Your task to perform on an android device: delete the emails in spam in the gmail app Image 0: 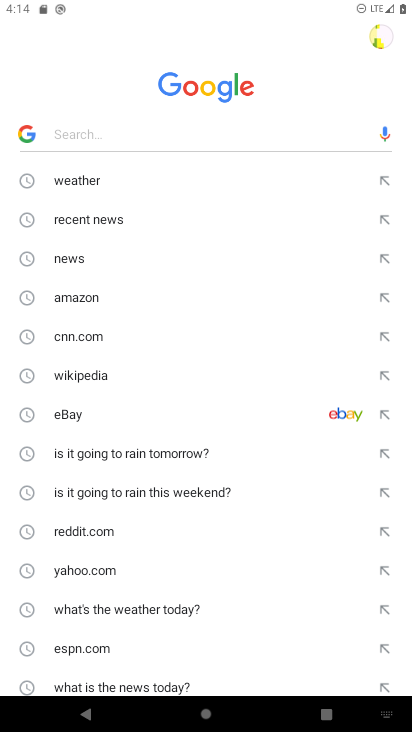
Step 0: press home button
Your task to perform on an android device: delete the emails in spam in the gmail app Image 1: 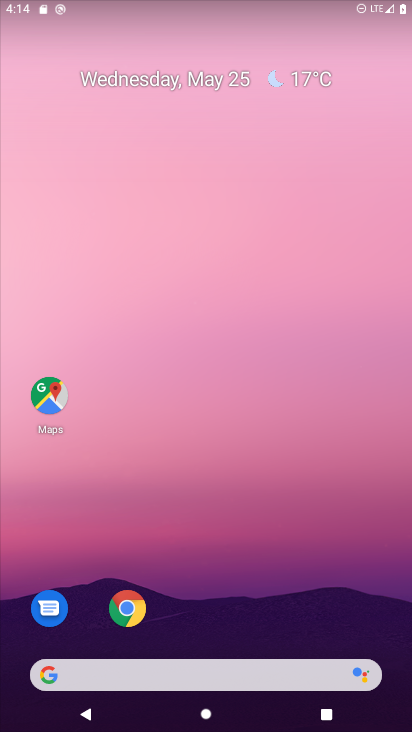
Step 1: drag from (375, 639) to (305, 104)
Your task to perform on an android device: delete the emails in spam in the gmail app Image 2: 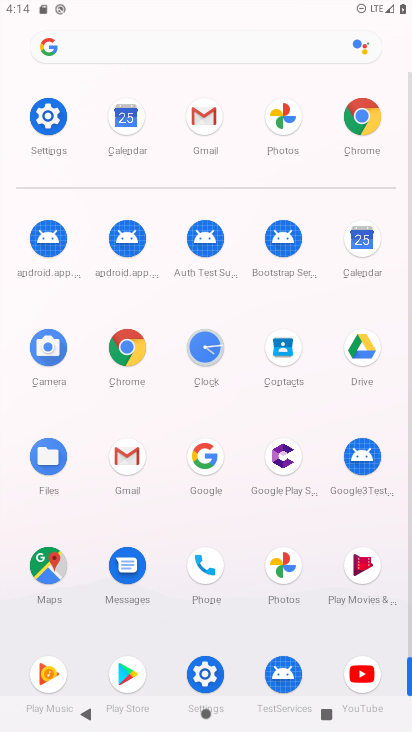
Step 2: click (410, 641)
Your task to perform on an android device: delete the emails in spam in the gmail app Image 3: 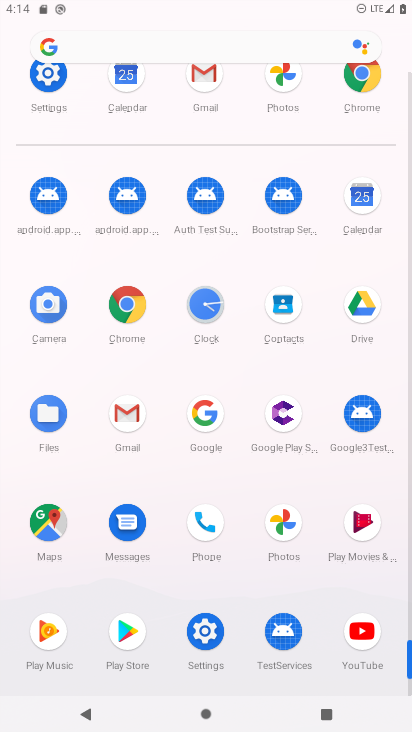
Step 3: click (126, 413)
Your task to perform on an android device: delete the emails in spam in the gmail app Image 4: 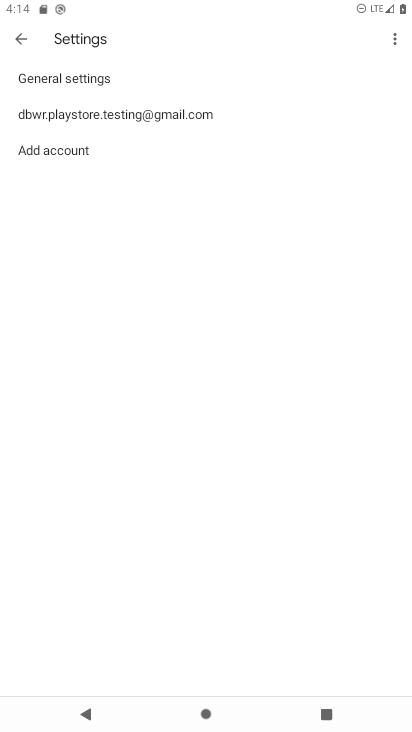
Step 4: press back button
Your task to perform on an android device: delete the emails in spam in the gmail app Image 5: 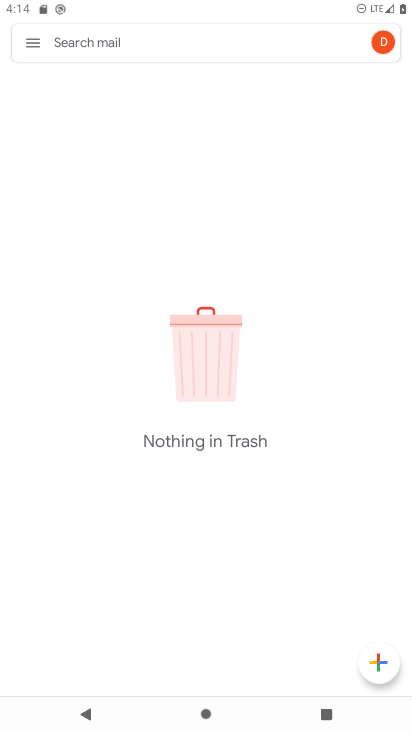
Step 5: click (35, 41)
Your task to perform on an android device: delete the emails in spam in the gmail app Image 6: 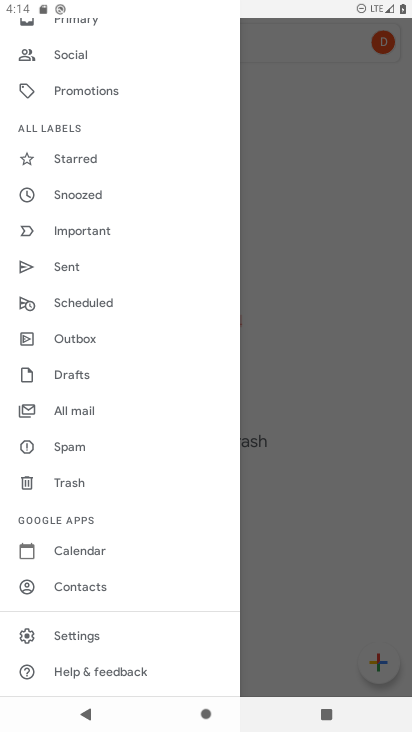
Step 6: click (70, 443)
Your task to perform on an android device: delete the emails in spam in the gmail app Image 7: 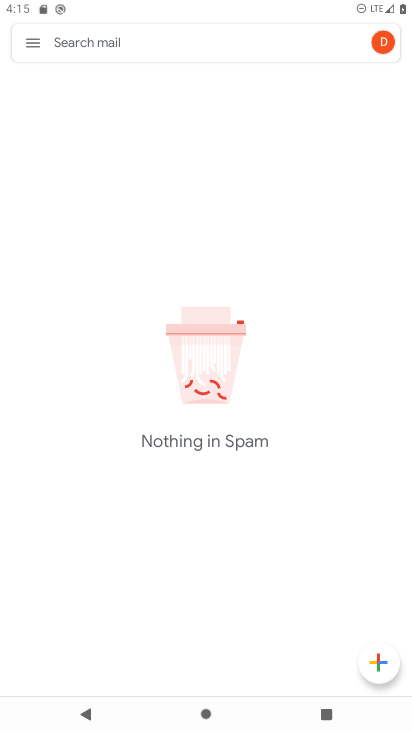
Step 7: task complete